Your task to perform on an android device: Open CNN.com Image 0: 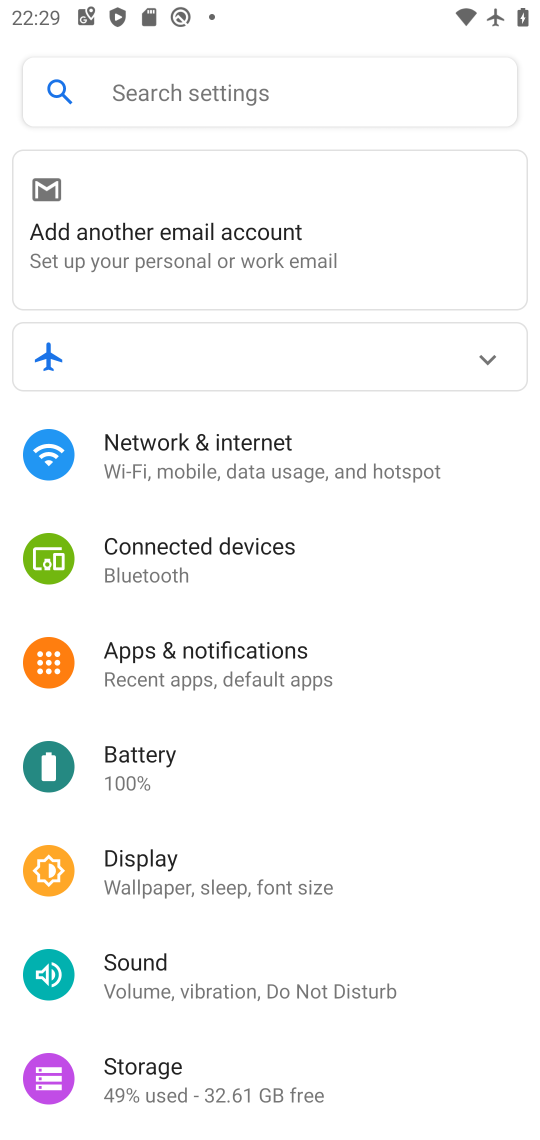
Step 0: press home button
Your task to perform on an android device: Open CNN.com Image 1: 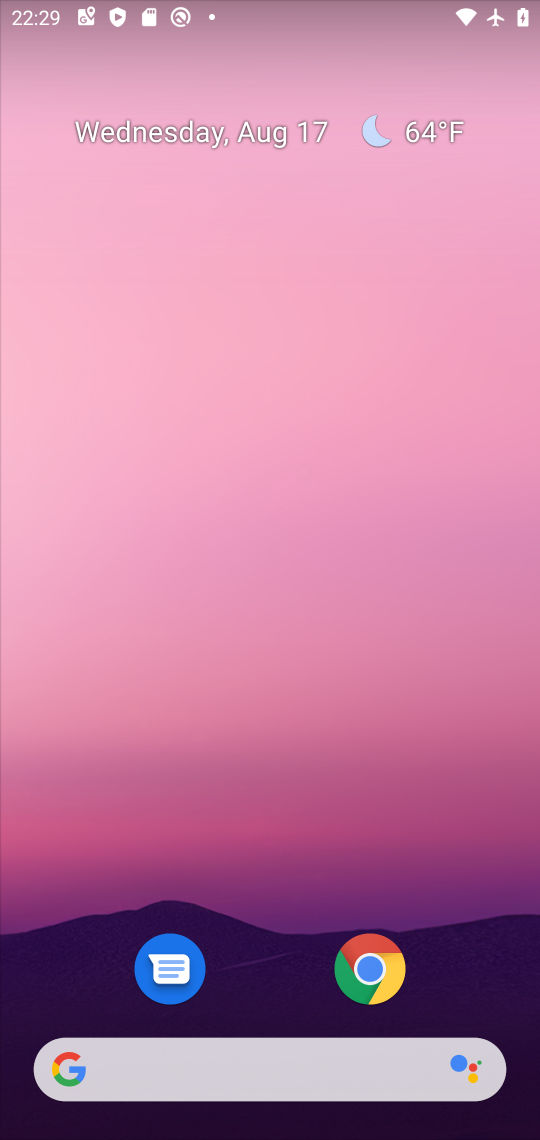
Step 1: click (193, 1074)
Your task to perform on an android device: Open CNN.com Image 2: 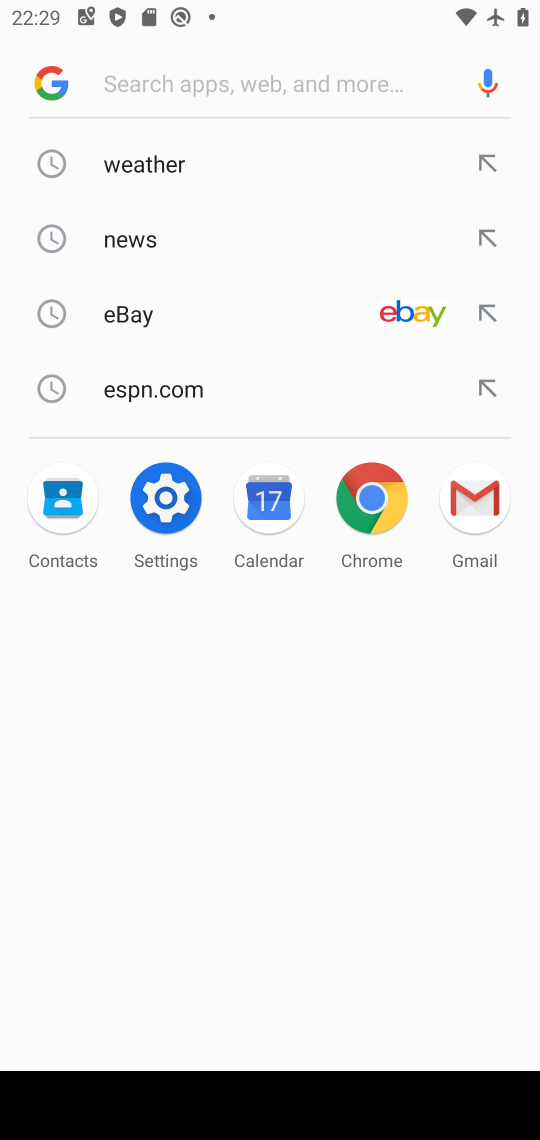
Step 2: type "cnn.com"
Your task to perform on an android device: Open CNN.com Image 3: 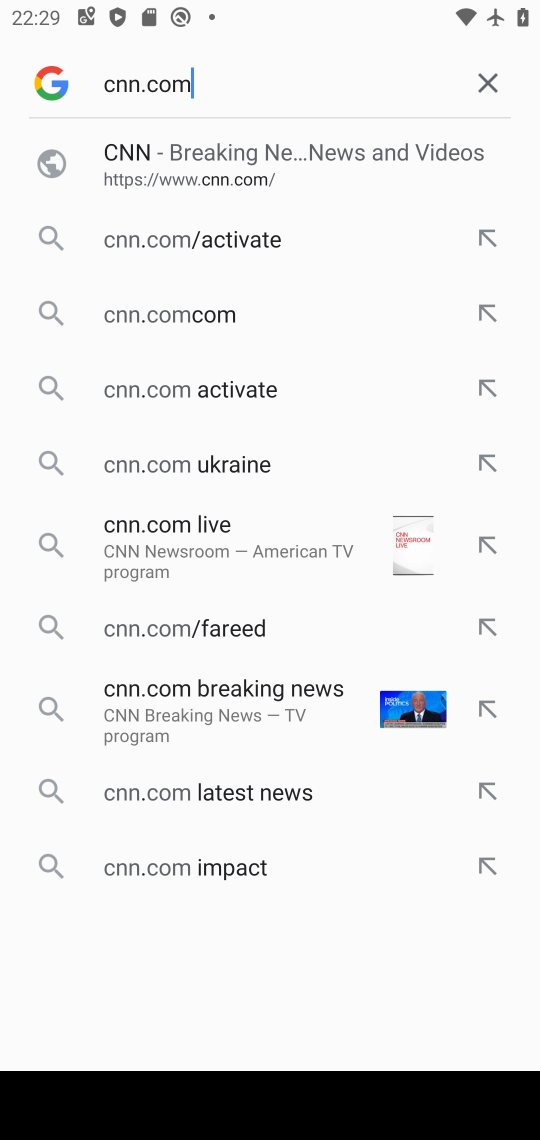
Step 3: click (191, 167)
Your task to perform on an android device: Open CNN.com Image 4: 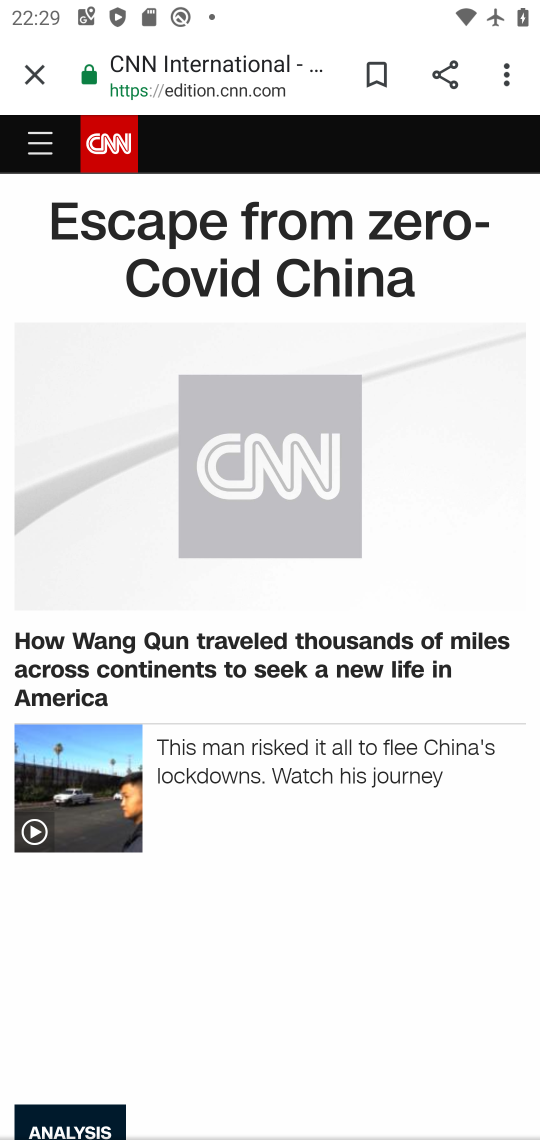
Step 4: task complete